Your task to perform on an android device: Go to Google maps Image 0: 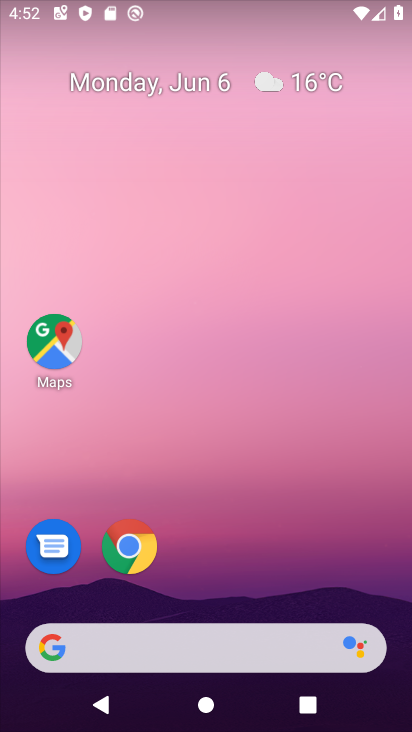
Step 0: drag from (176, 614) to (177, 220)
Your task to perform on an android device: Go to Google maps Image 1: 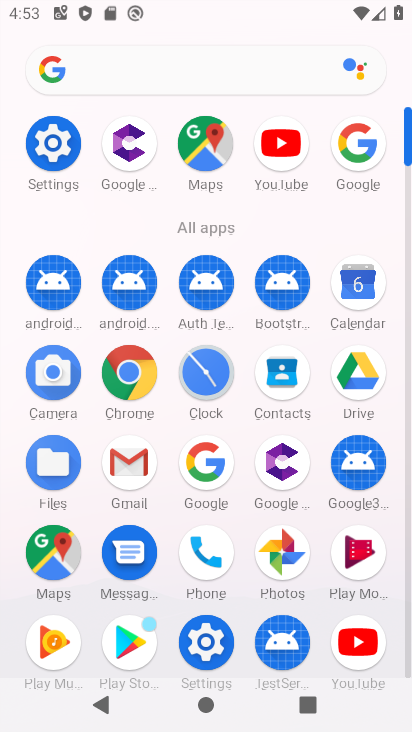
Step 1: click (43, 549)
Your task to perform on an android device: Go to Google maps Image 2: 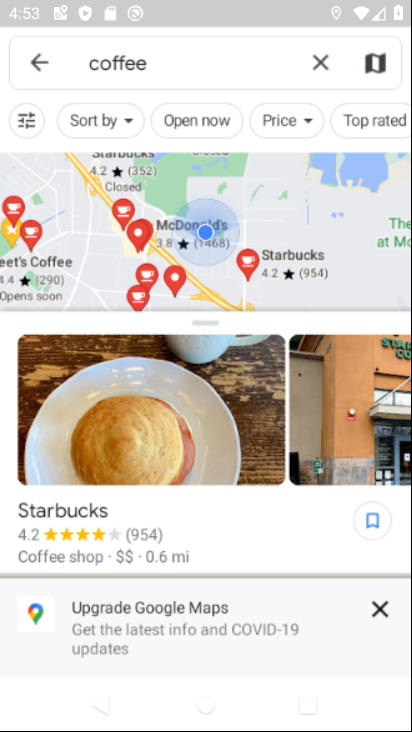
Step 2: click (313, 62)
Your task to perform on an android device: Go to Google maps Image 3: 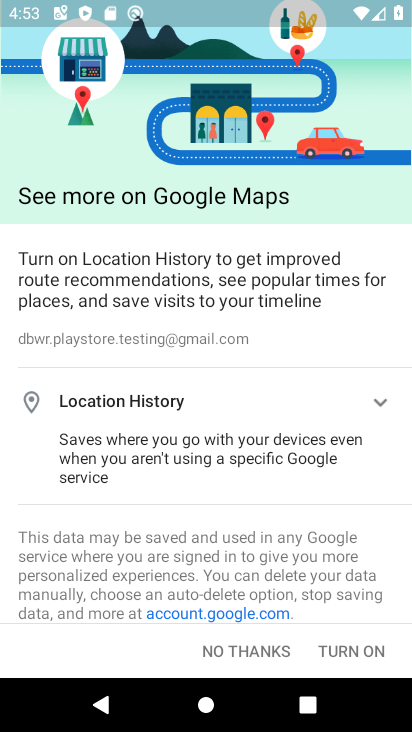
Step 3: click (365, 657)
Your task to perform on an android device: Go to Google maps Image 4: 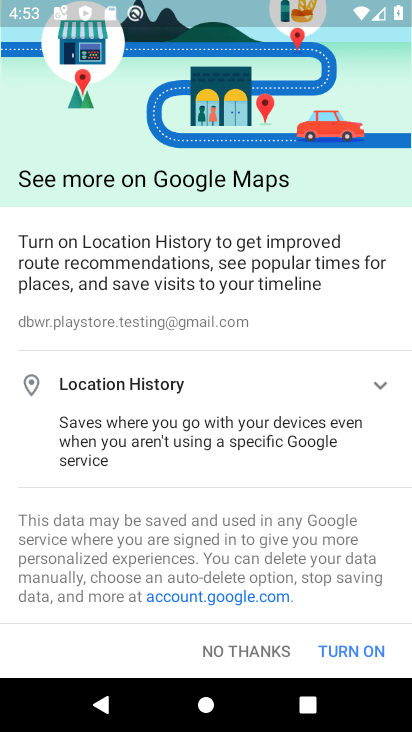
Step 4: click (331, 654)
Your task to perform on an android device: Go to Google maps Image 5: 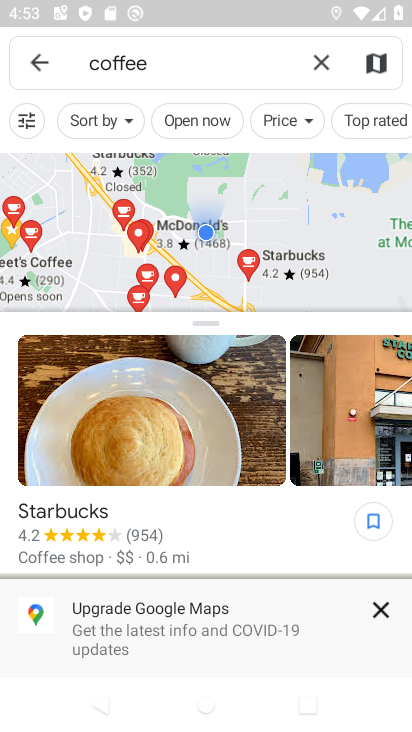
Step 5: click (326, 60)
Your task to perform on an android device: Go to Google maps Image 6: 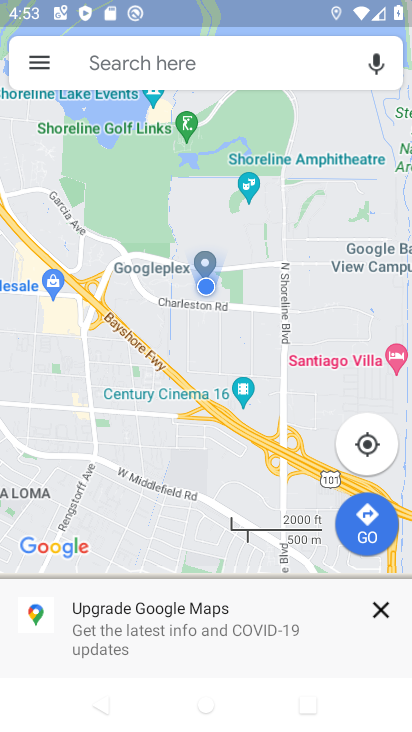
Step 6: task complete